Your task to perform on an android device: Open CNN.com Image 0: 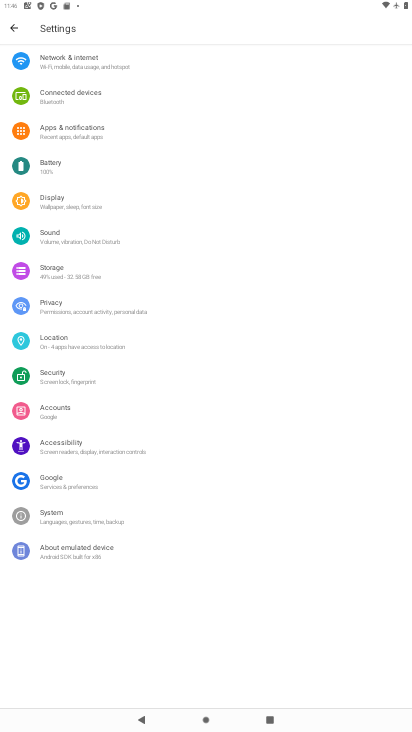
Step 0: press home button
Your task to perform on an android device: Open CNN.com Image 1: 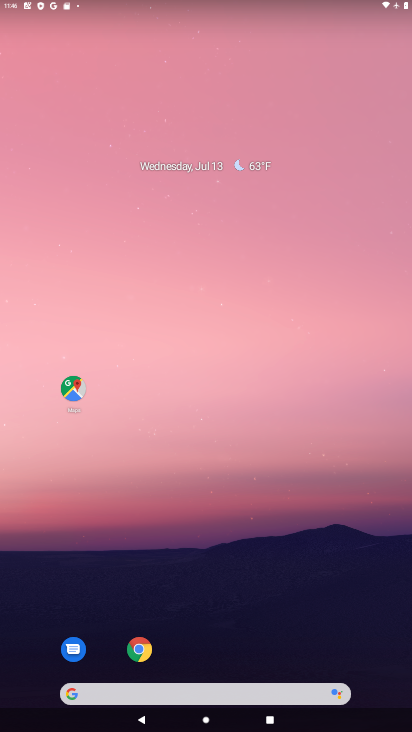
Step 1: drag from (202, 601) to (266, 176)
Your task to perform on an android device: Open CNN.com Image 2: 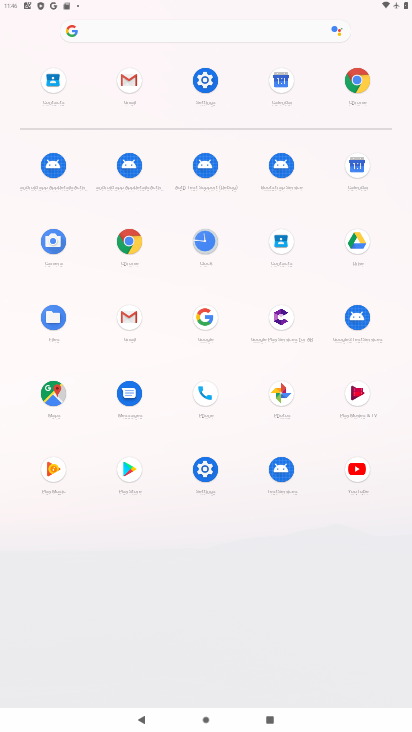
Step 2: click (349, 69)
Your task to perform on an android device: Open CNN.com Image 3: 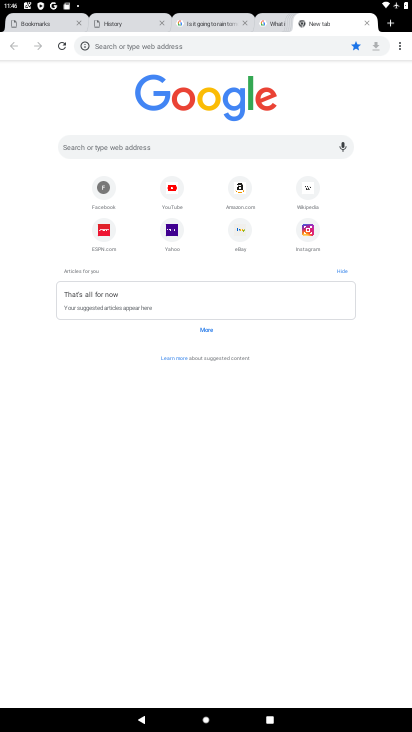
Step 3: click (185, 142)
Your task to perform on an android device: Open CNN.com Image 4: 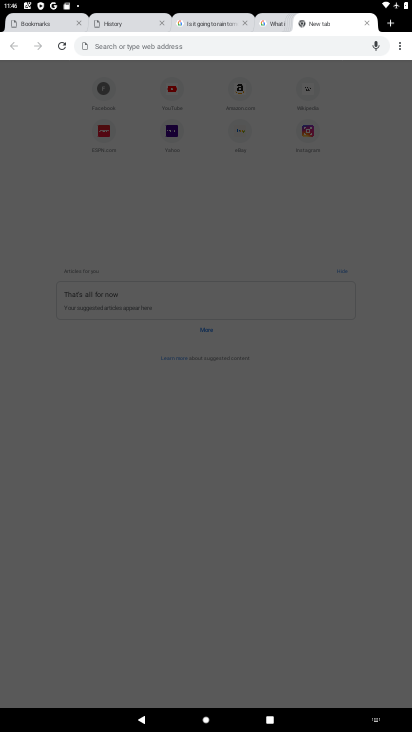
Step 4: type " CNN.com "
Your task to perform on an android device: Open CNN.com Image 5: 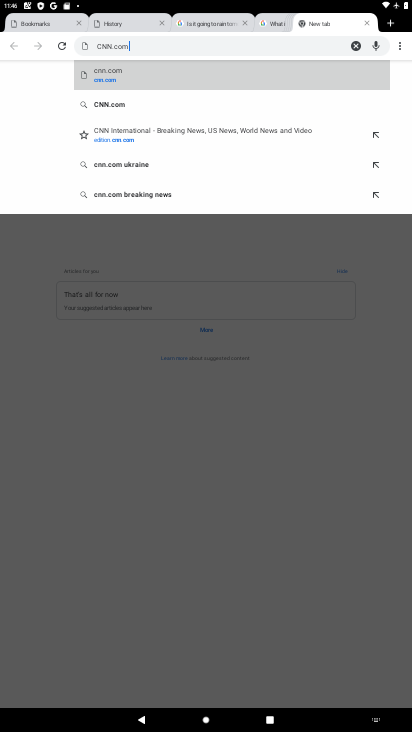
Step 5: click (212, 63)
Your task to perform on an android device: Open CNN.com Image 6: 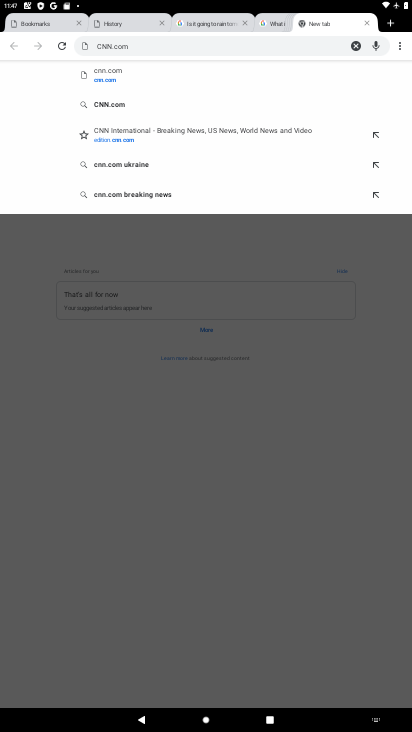
Step 6: click (103, 66)
Your task to perform on an android device: Open CNN.com Image 7: 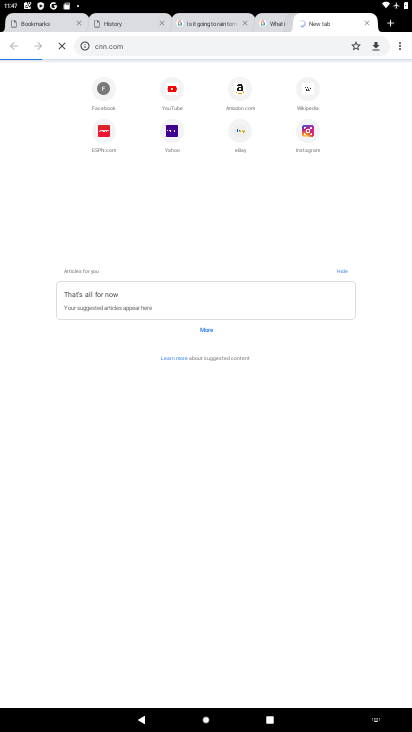
Step 7: task complete